Your task to perform on an android device: toggle pop-ups in chrome Image 0: 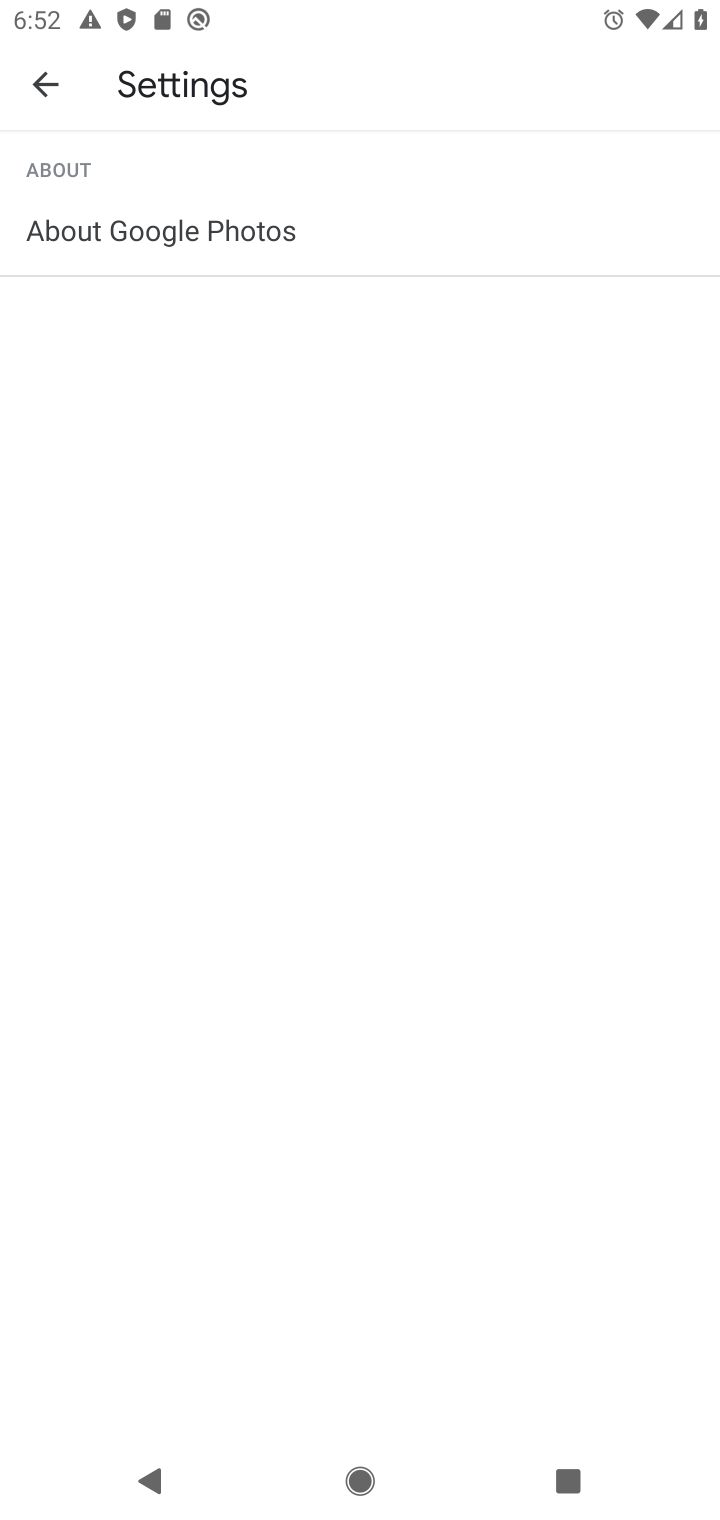
Step 0: press home button
Your task to perform on an android device: toggle pop-ups in chrome Image 1: 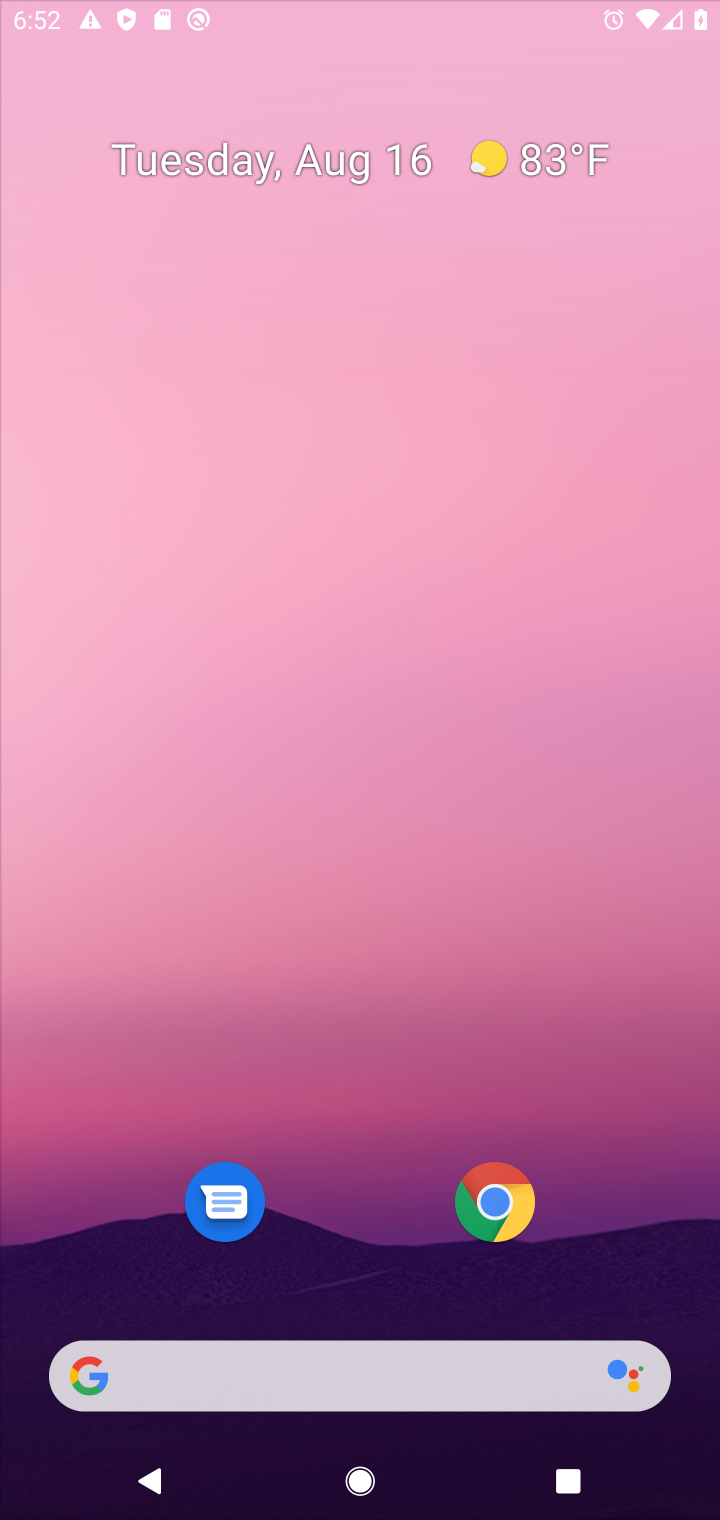
Step 1: drag from (651, 907) to (451, 8)
Your task to perform on an android device: toggle pop-ups in chrome Image 2: 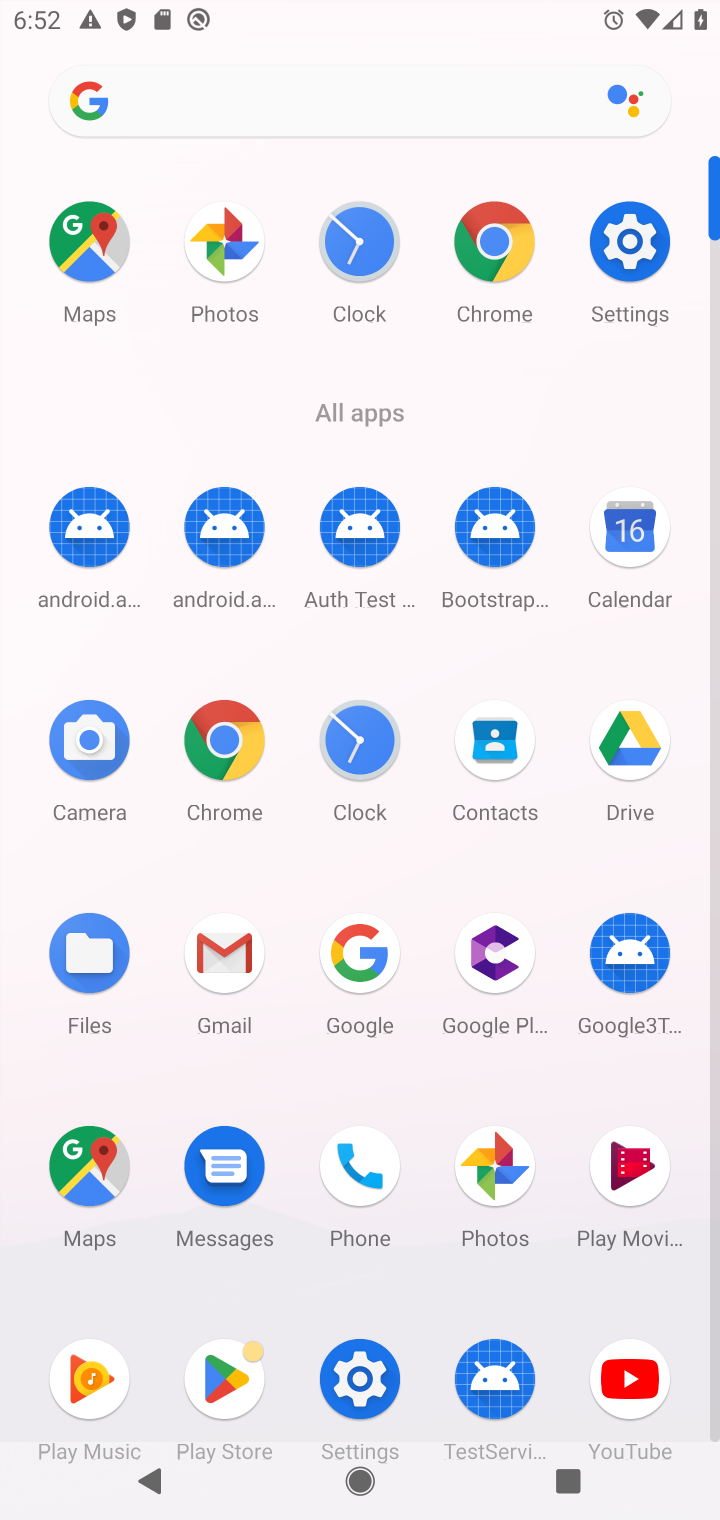
Step 2: click (491, 228)
Your task to perform on an android device: toggle pop-ups in chrome Image 3: 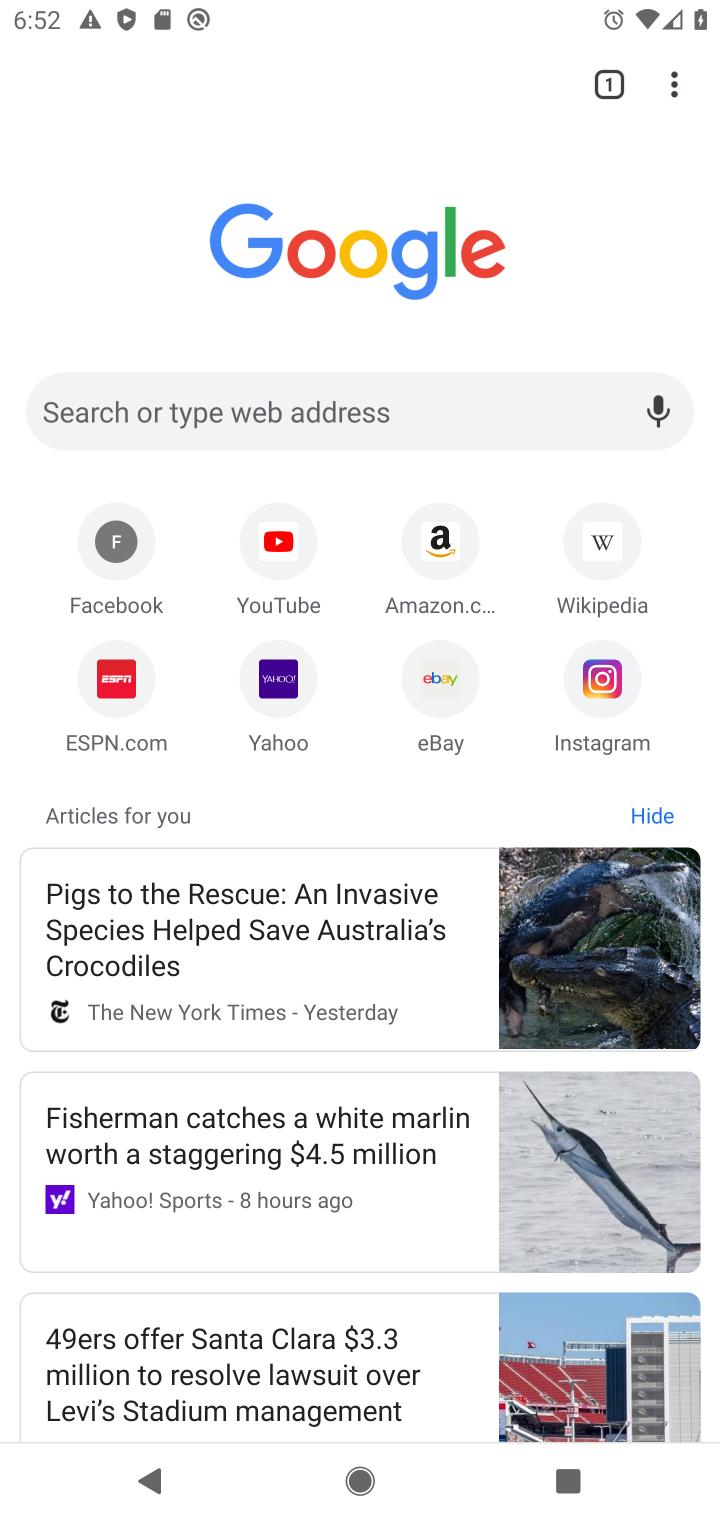
Step 3: click (675, 85)
Your task to perform on an android device: toggle pop-ups in chrome Image 4: 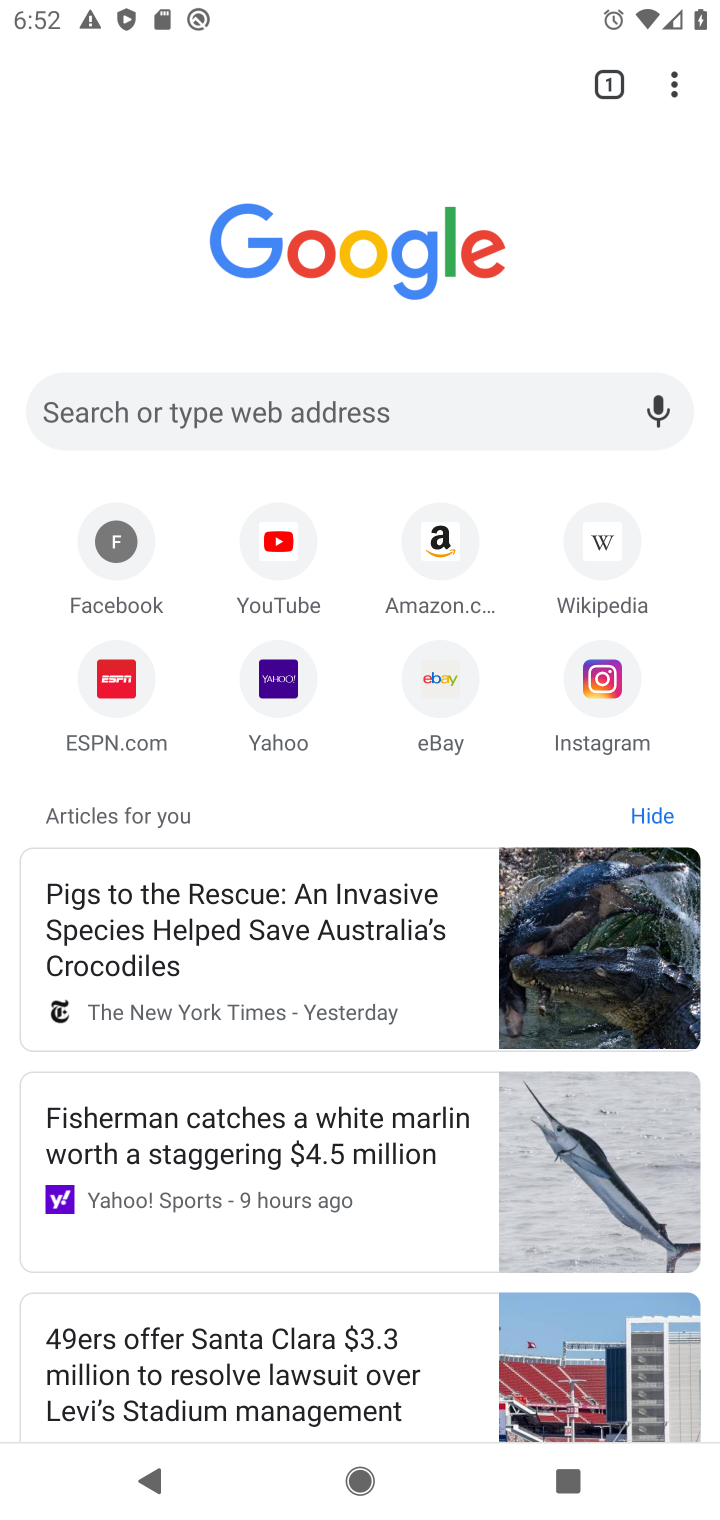
Step 4: click (667, 71)
Your task to perform on an android device: toggle pop-ups in chrome Image 5: 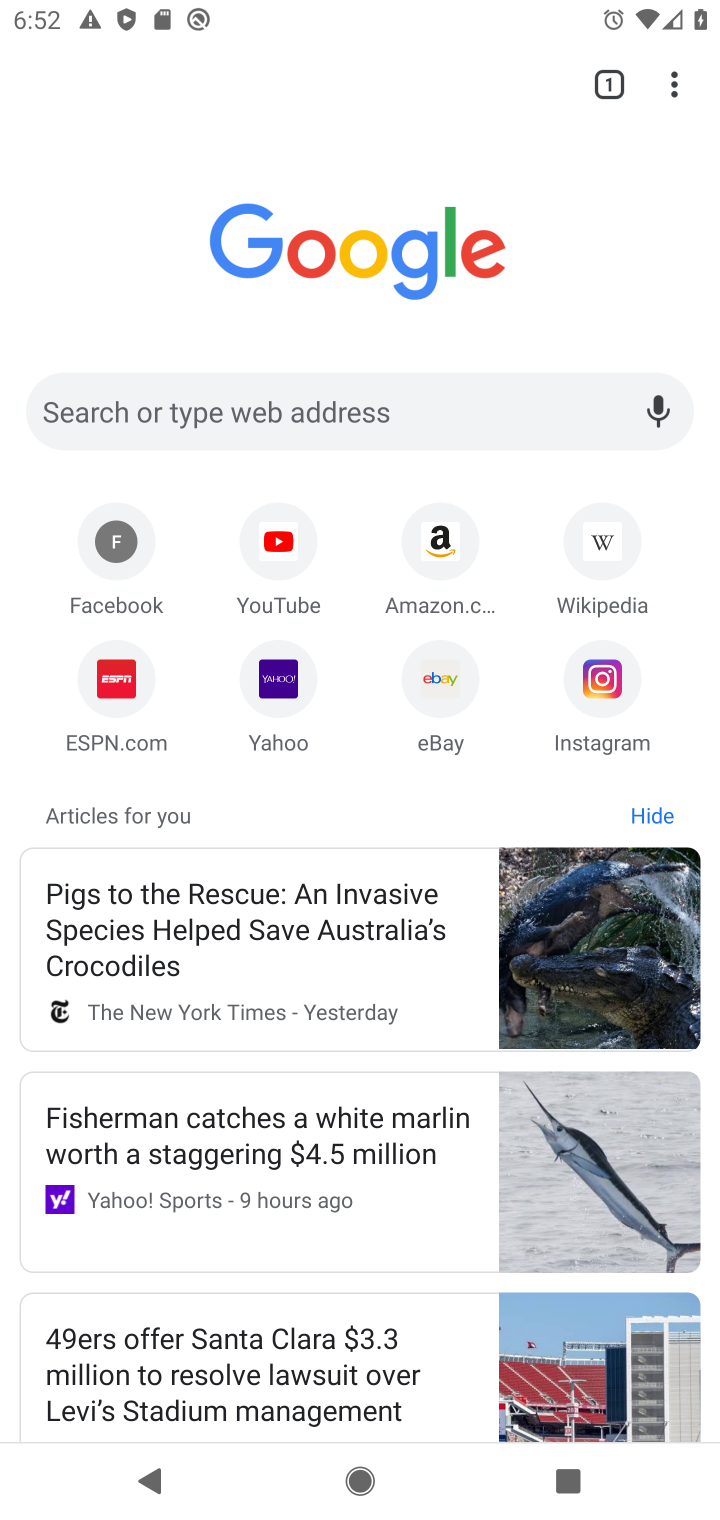
Step 5: click (676, 79)
Your task to perform on an android device: toggle pop-ups in chrome Image 6: 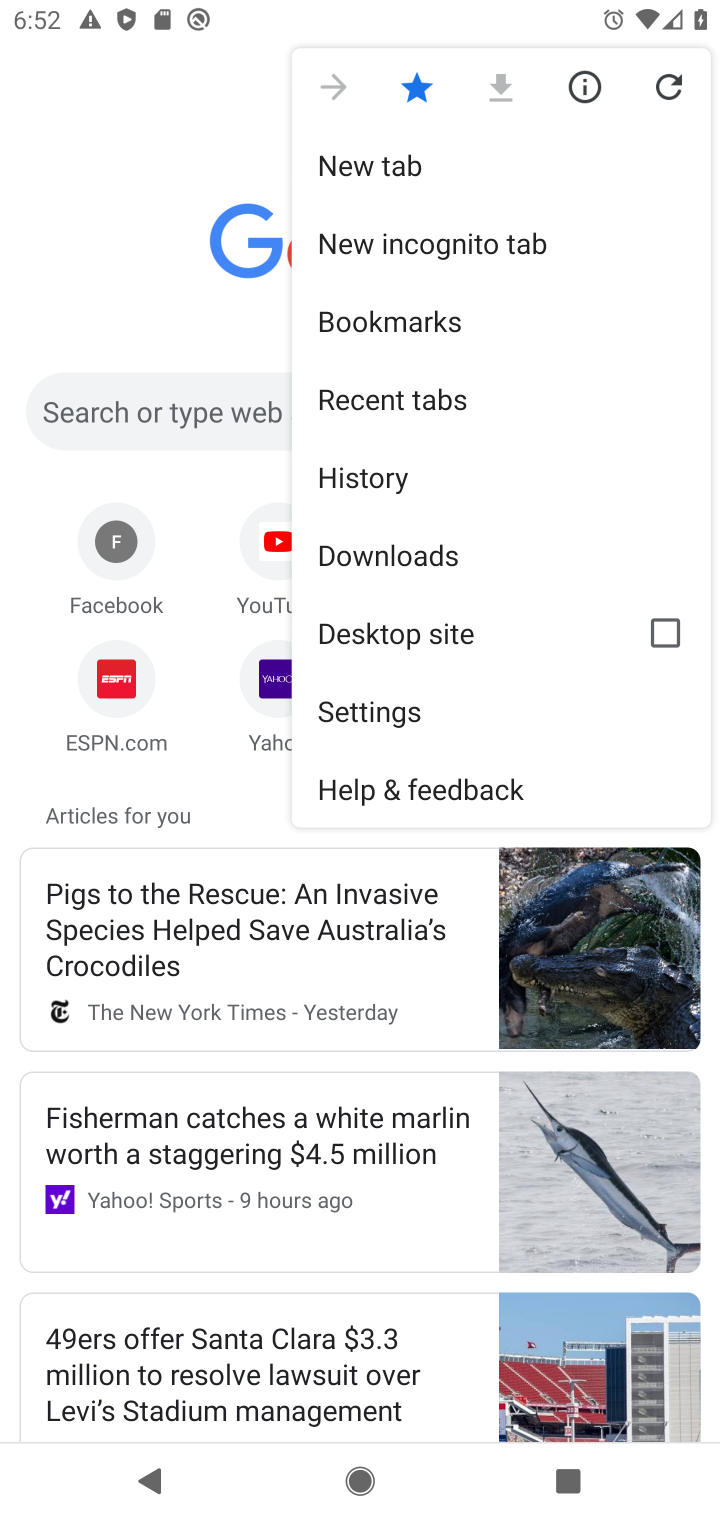
Step 6: click (375, 715)
Your task to perform on an android device: toggle pop-ups in chrome Image 7: 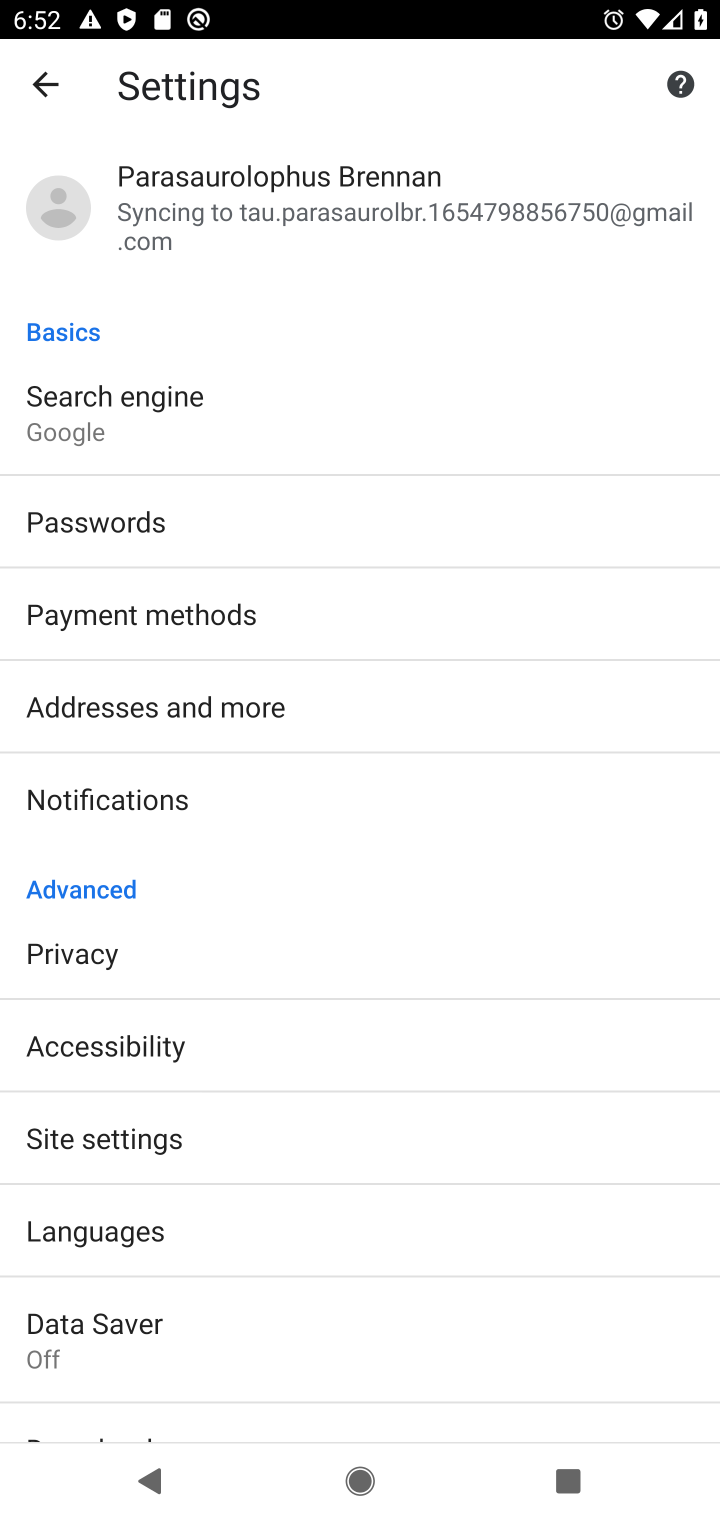
Step 7: click (104, 1143)
Your task to perform on an android device: toggle pop-ups in chrome Image 8: 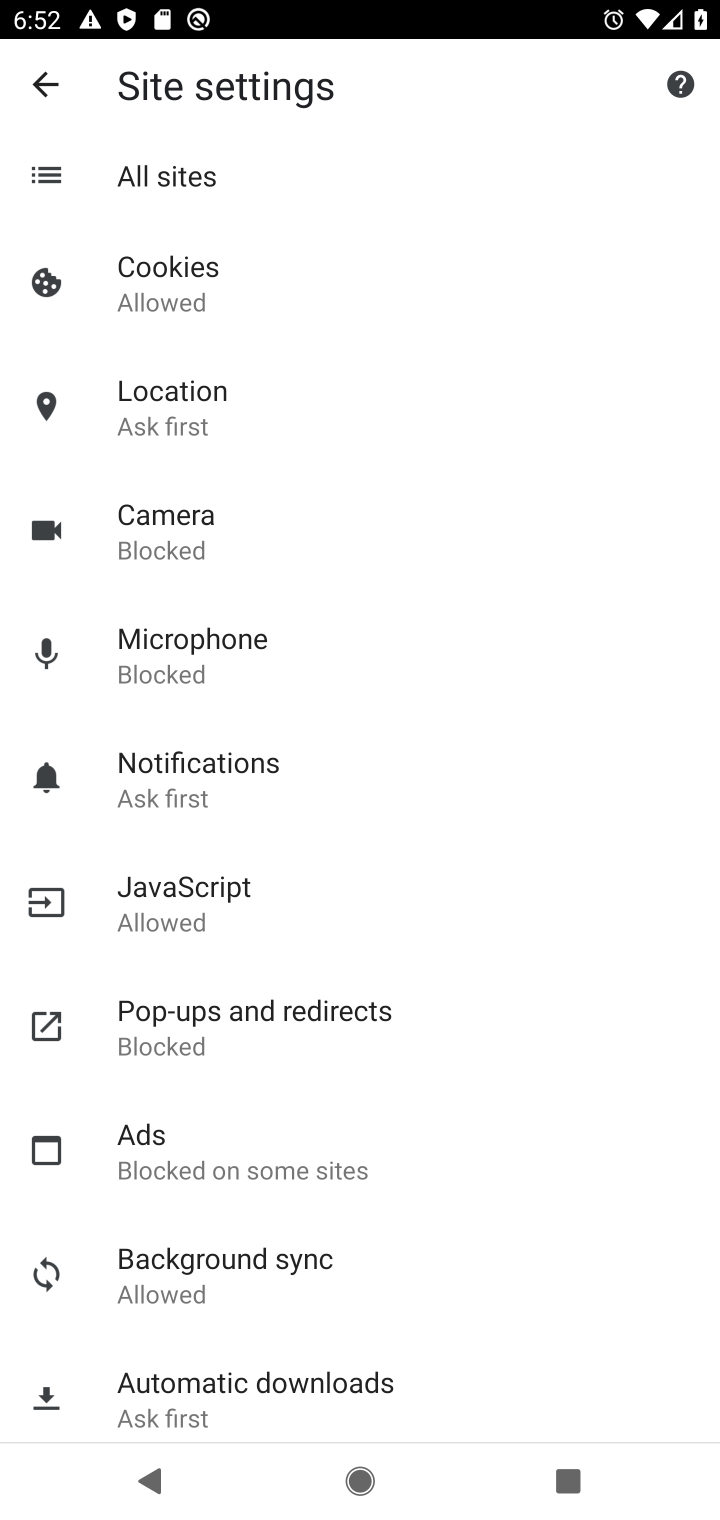
Step 8: click (275, 1035)
Your task to perform on an android device: toggle pop-ups in chrome Image 9: 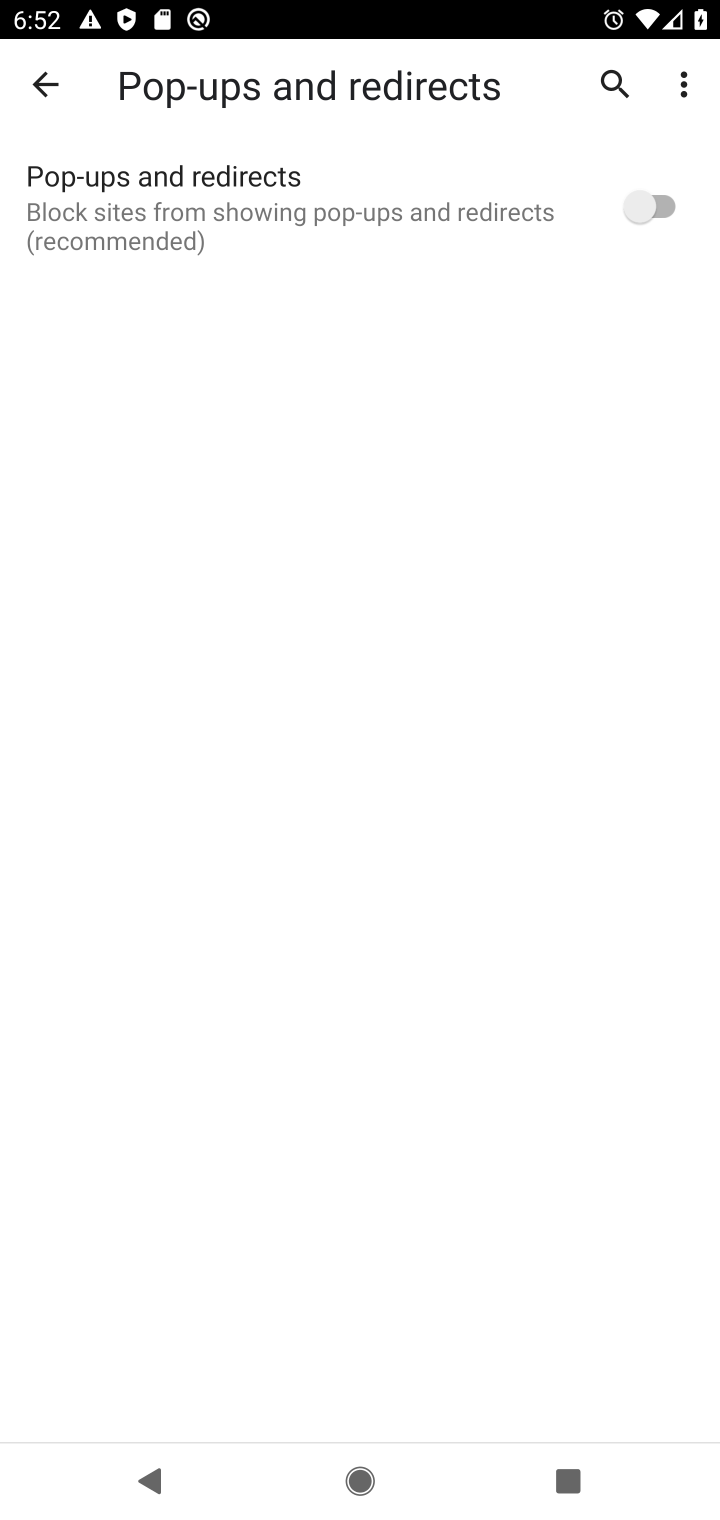
Step 9: click (576, 189)
Your task to perform on an android device: toggle pop-ups in chrome Image 10: 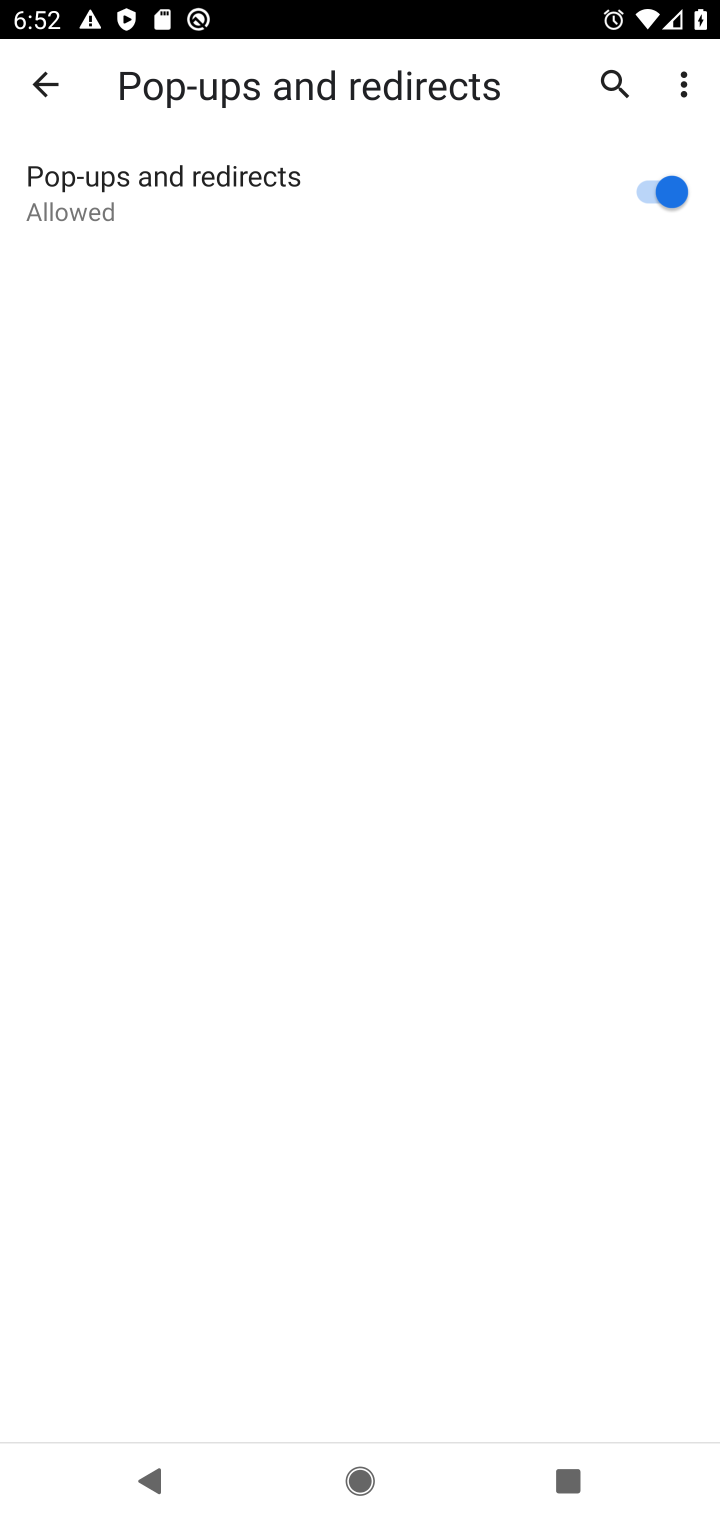
Step 10: task complete